Your task to perform on an android device: Open Wikipedia Image 0: 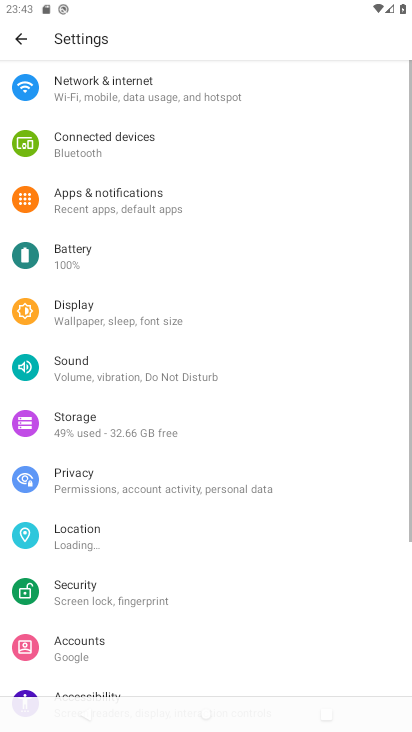
Step 0: drag from (224, 654) to (137, 216)
Your task to perform on an android device: Open Wikipedia Image 1: 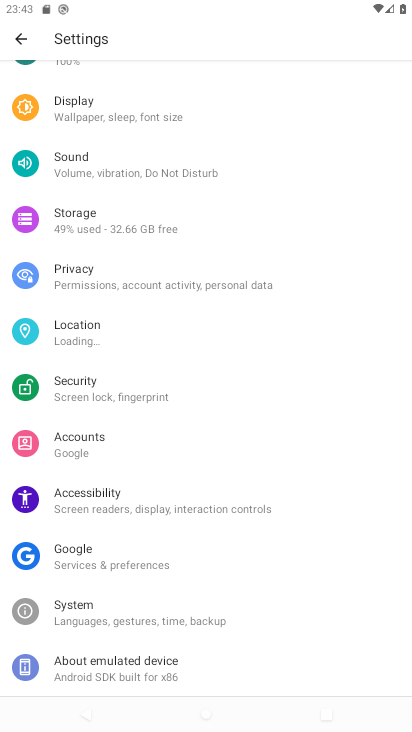
Step 1: press home button
Your task to perform on an android device: Open Wikipedia Image 2: 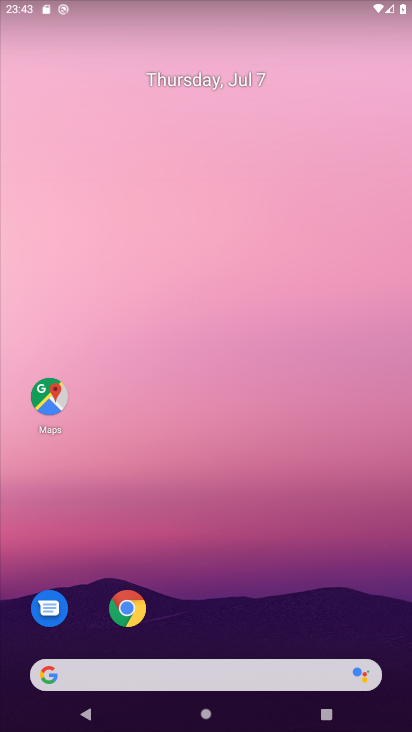
Step 2: drag from (252, 620) to (231, 72)
Your task to perform on an android device: Open Wikipedia Image 3: 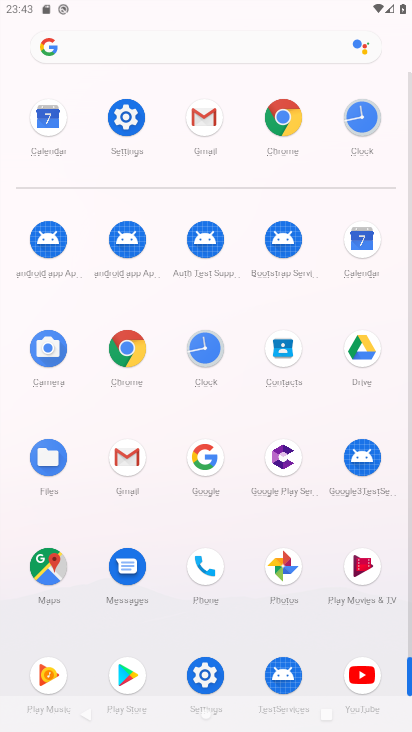
Step 3: click (123, 344)
Your task to perform on an android device: Open Wikipedia Image 4: 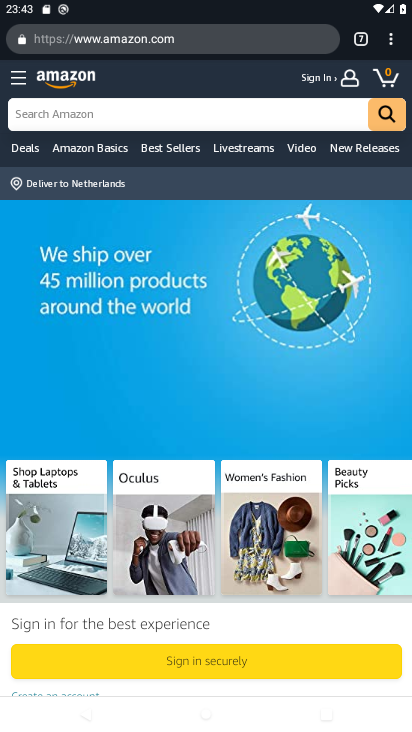
Step 4: click (381, 37)
Your task to perform on an android device: Open Wikipedia Image 5: 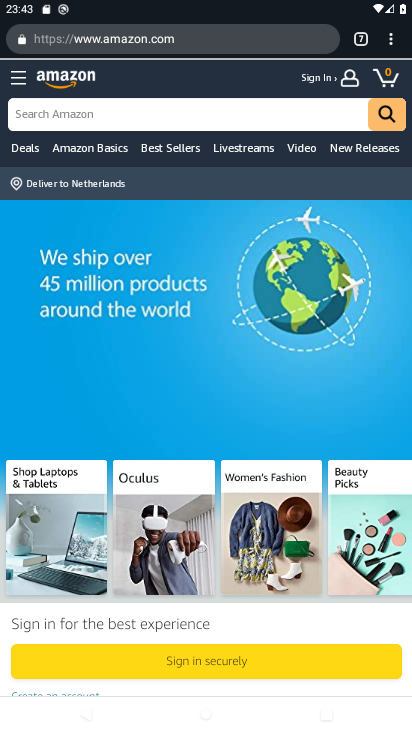
Step 5: click (398, 37)
Your task to perform on an android device: Open Wikipedia Image 6: 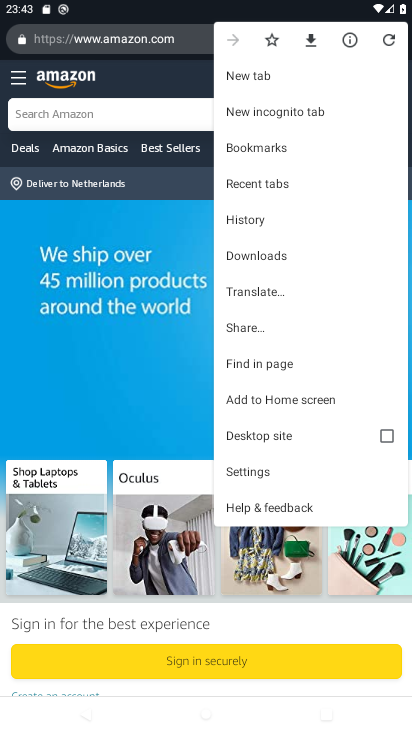
Step 6: click (253, 81)
Your task to perform on an android device: Open Wikipedia Image 7: 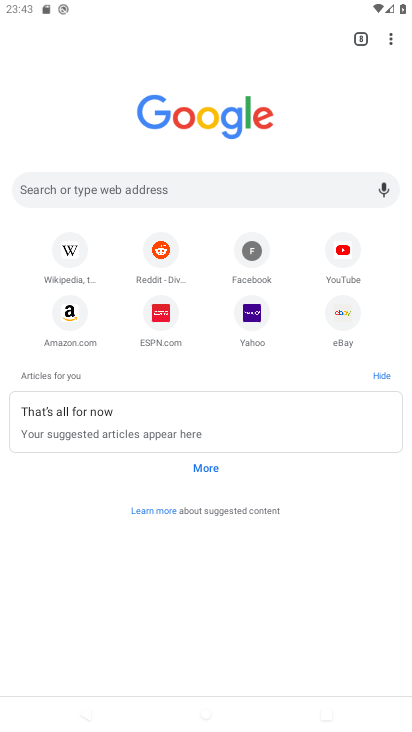
Step 7: click (68, 243)
Your task to perform on an android device: Open Wikipedia Image 8: 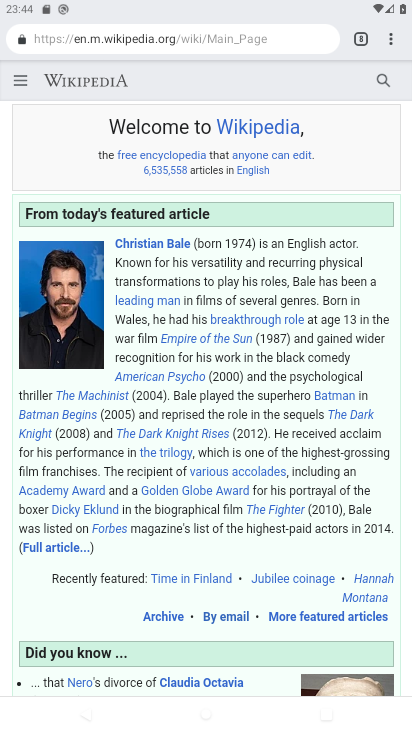
Step 8: task complete